Your task to perform on an android device: Open Google Maps and go to "Timeline" Image 0: 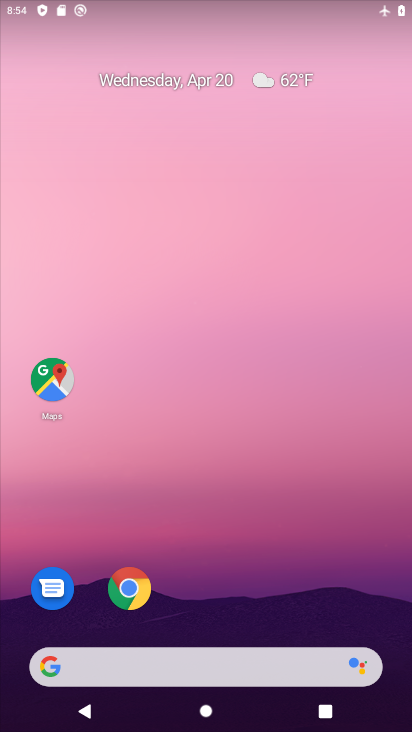
Step 0: drag from (308, 463) to (122, 15)
Your task to perform on an android device: Open Google Maps and go to "Timeline" Image 1: 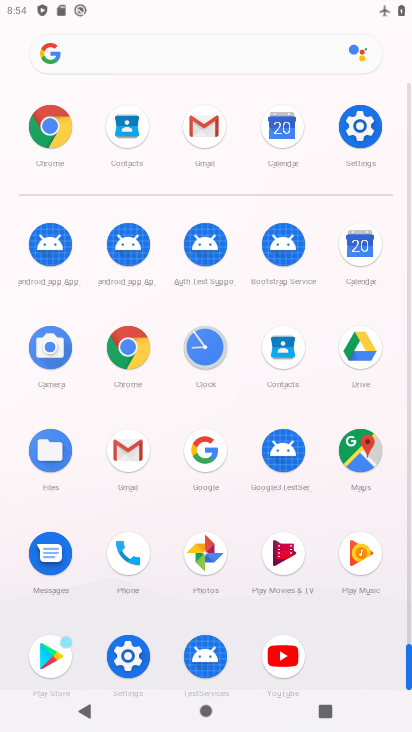
Step 1: drag from (8, 508) to (0, 355)
Your task to perform on an android device: Open Google Maps and go to "Timeline" Image 2: 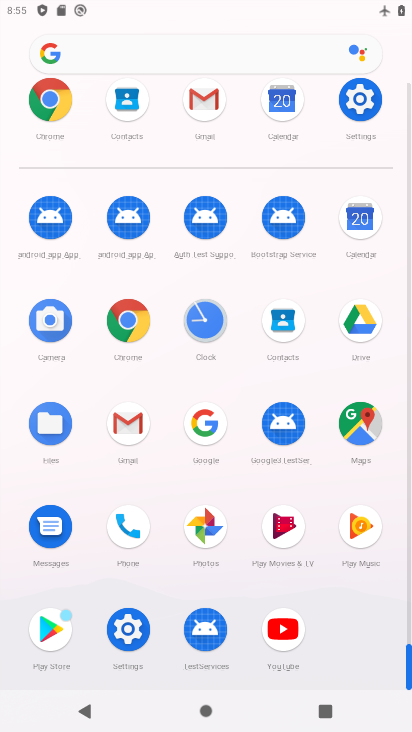
Step 2: click (362, 425)
Your task to perform on an android device: Open Google Maps and go to "Timeline" Image 3: 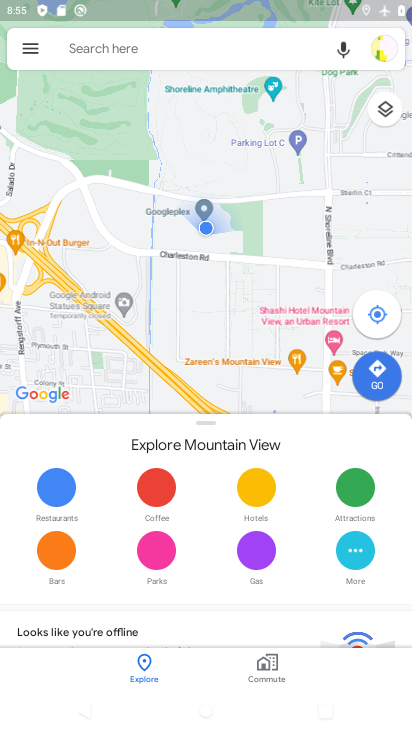
Step 3: click (29, 45)
Your task to perform on an android device: Open Google Maps and go to "Timeline" Image 4: 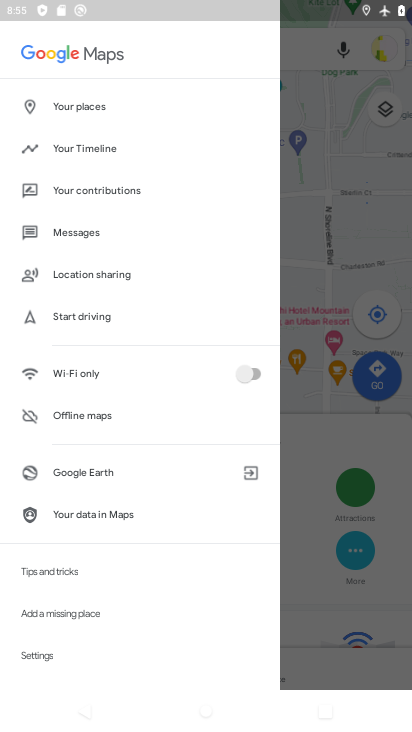
Step 4: click (105, 146)
Your task to perform on an android device: Open Google Maps and go to "Timeline" Image 5: 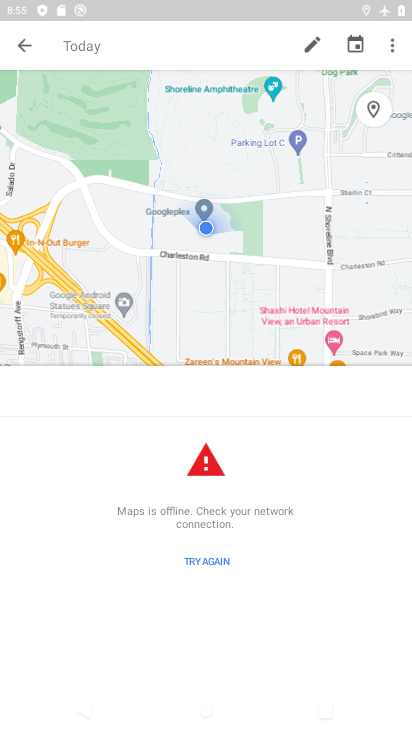
Step 5: task complete